Your task to perform on an android device: View the shopping cart on ebay. Image 0: 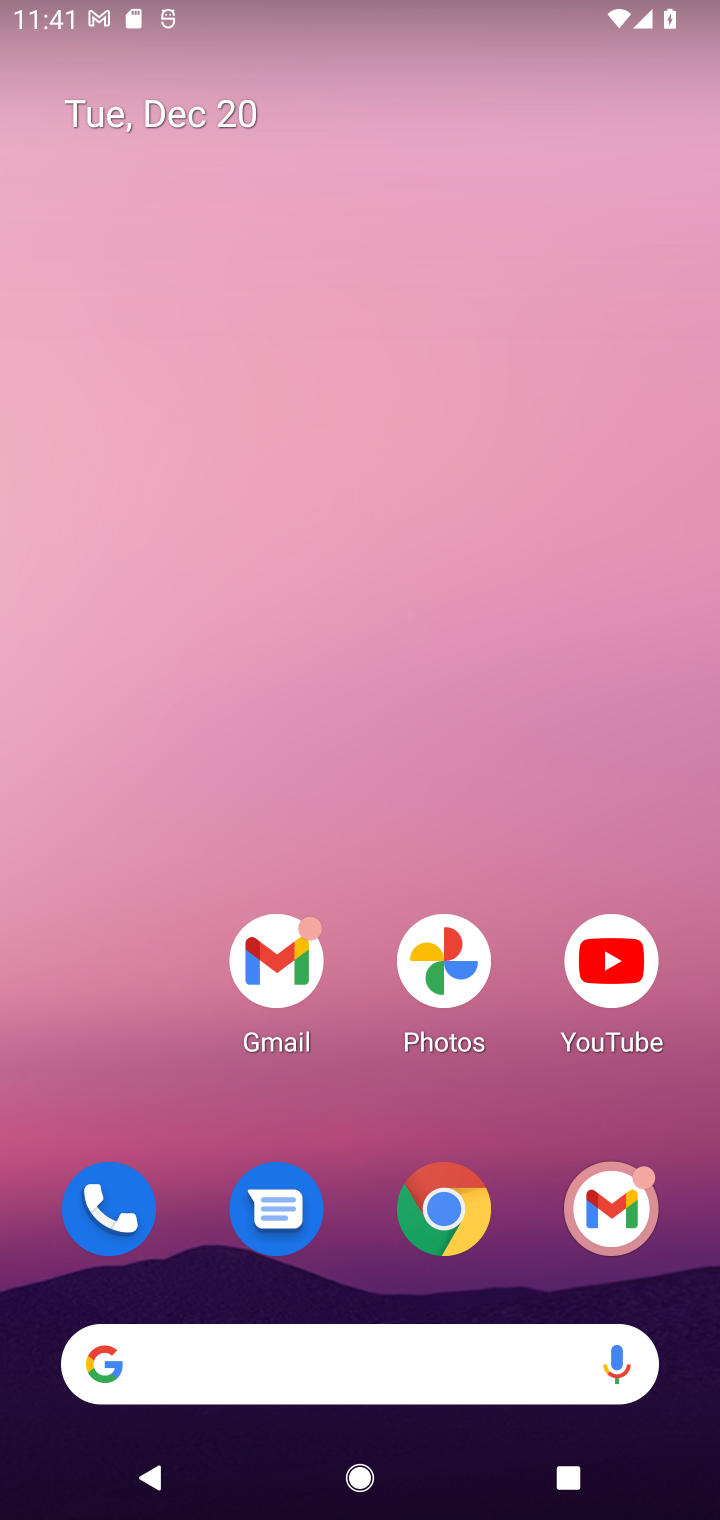
Step 0: click (453, 1199)
Your task to perform on an android device: View the shopping cart on ebay. Image 1: 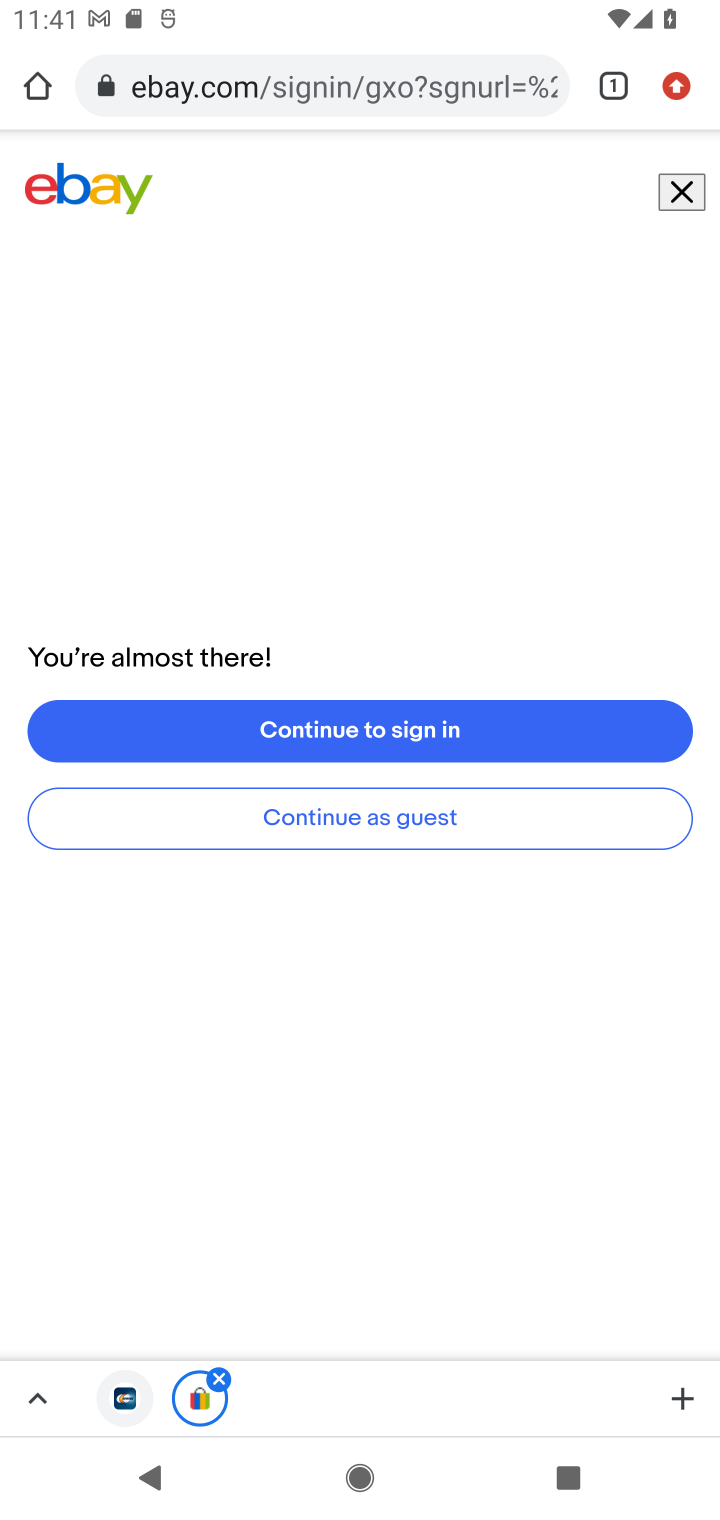
Step 1: click (675, 194)
Your task to perform on an android device: View the shopping cart on ebay. Image 2: 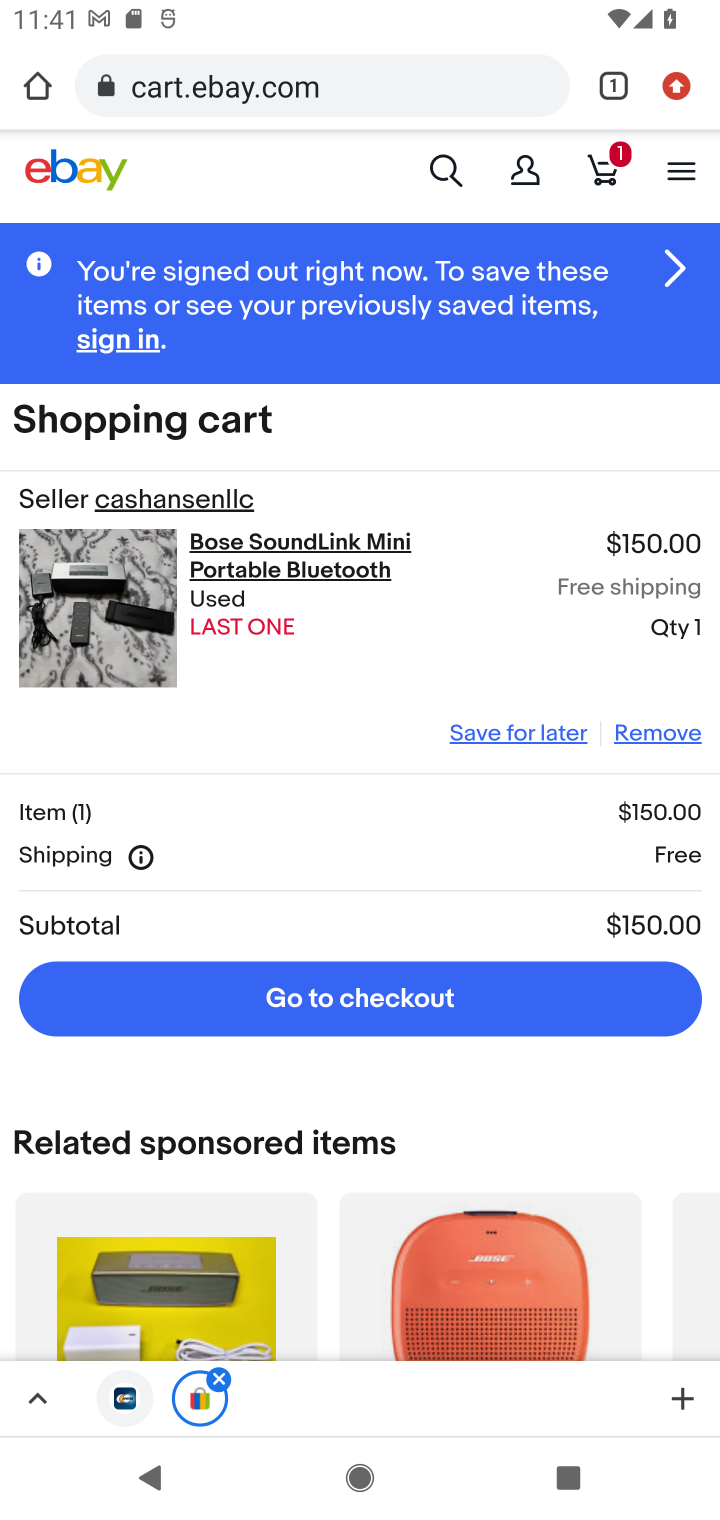
Step 2: click (600, 174)
Your task to perform on an android device: View the shopping cart on ebay. Image 3: 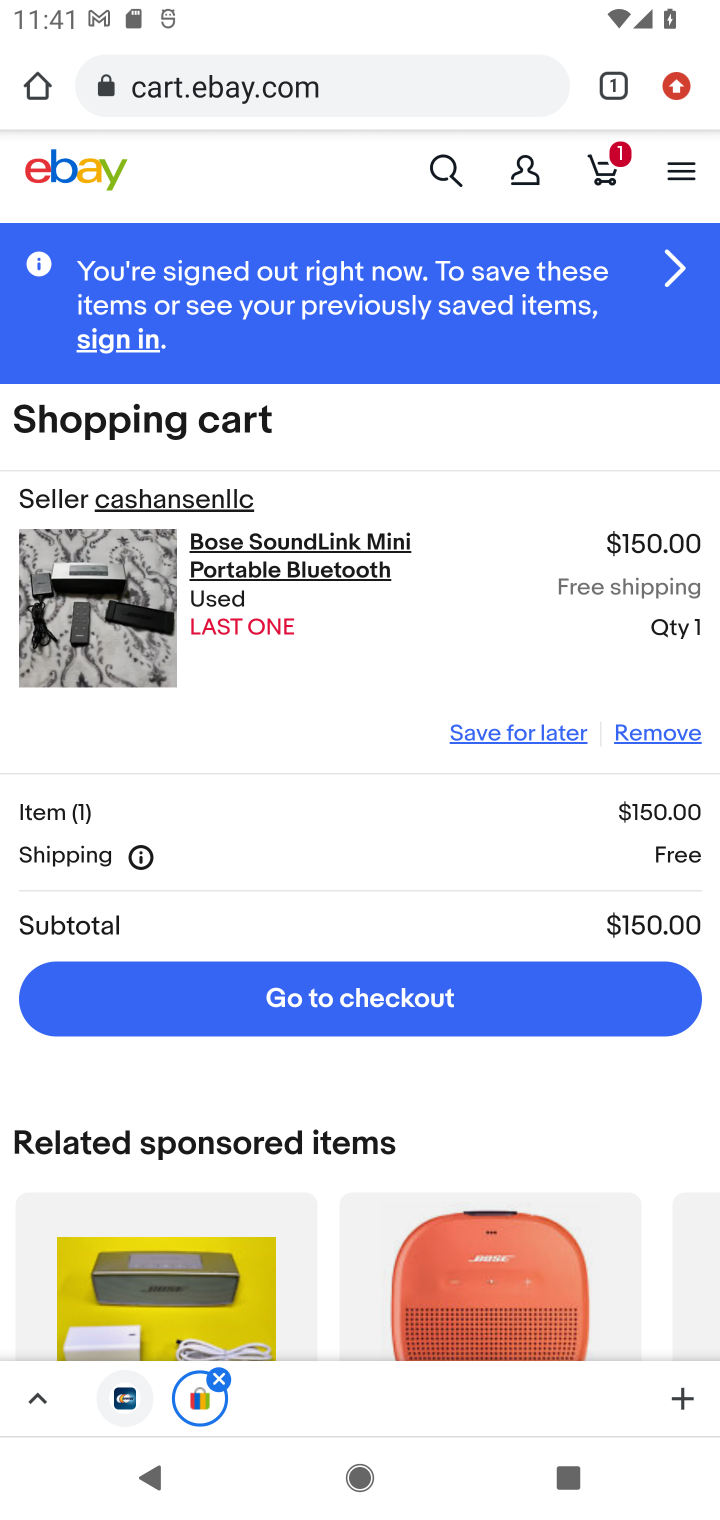
Step 3: task complete